Your task to perform on an android device: turn pop-ups on in chrome Image 0: 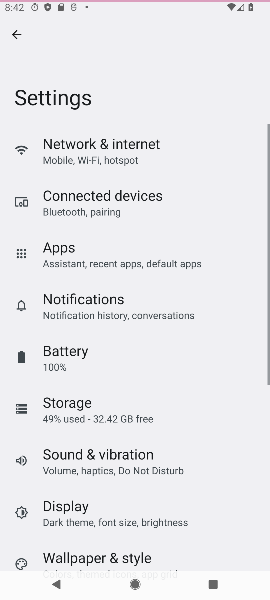
Step 0: press home button
Your task to perform on an android device: turn pop-ups on in chrome Image 1: 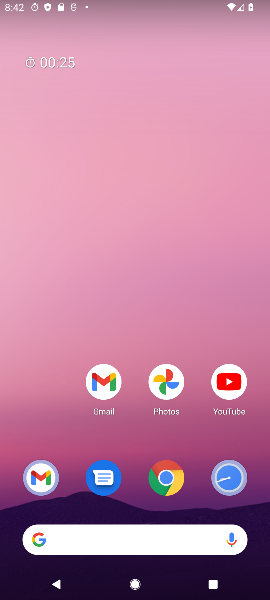
Step 1: drag from (147, 422) to (197, 2)
Your task to perform on an android device: turn pop-ups on in chrome Image 2: 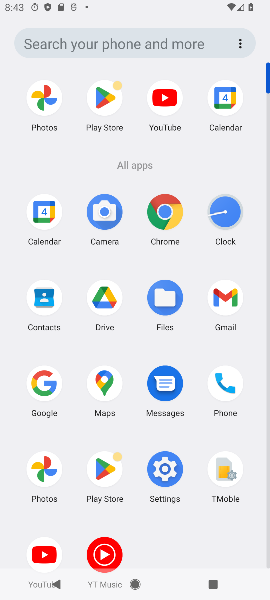
Step 2: click (167, 201)
Your task to perform on an android device: turn pop-ups on in chrome Image 3: 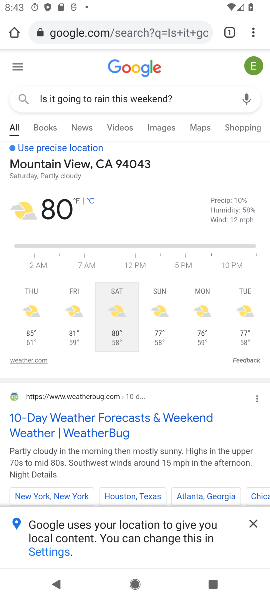
Step 3: drag from (246, 34) to (180, 364)
Your task to perform on an android device: turn pop-ups on in chrome Image 4: 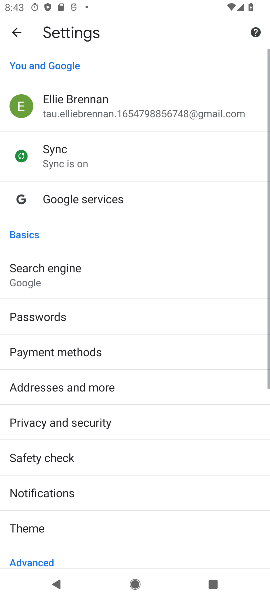
Step 4: drag from (118, 499) to (116, 96)
Your task to perform on an android device: turn pop-ups on in chrome Image 5: 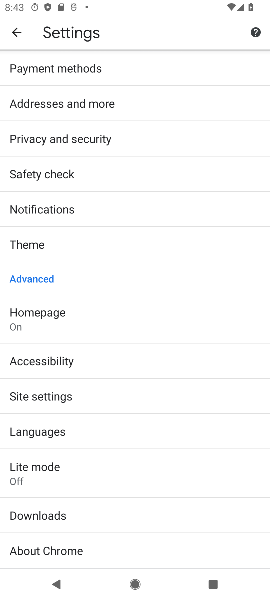
Step 5: click (17, 397)
Your task to perform on an android device: turn pop-ups on in chrome Image 6: 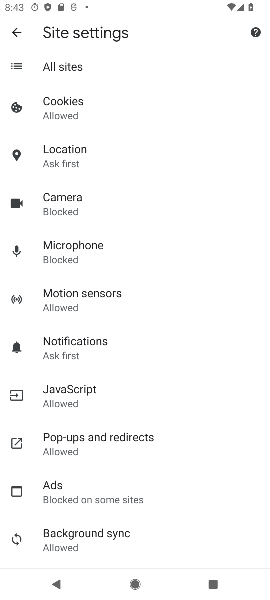
Step 6: click (106, 447)
Your task to perform on an android device: turn pop-ups on in chrome Image 7: 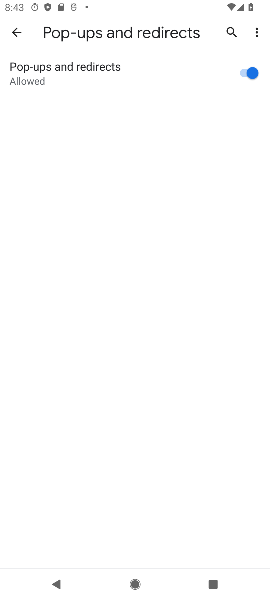
Step 7: task complete